Your task to perform on an android device: Open Wikipedia Image 0: 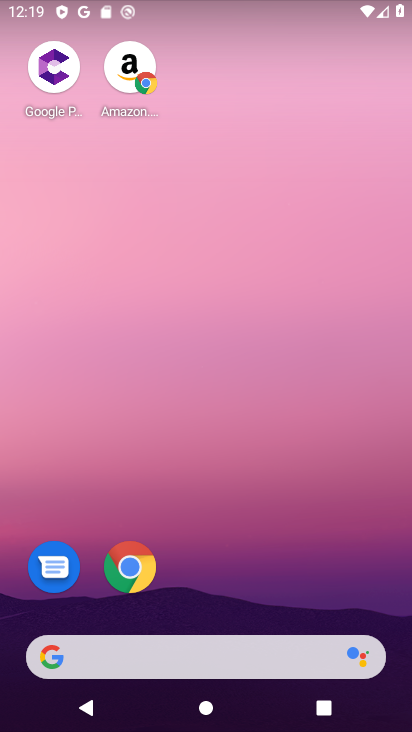
Step 0: click (131, 566)
Your task to perform on an android device: Open Wikipedia Image 1: 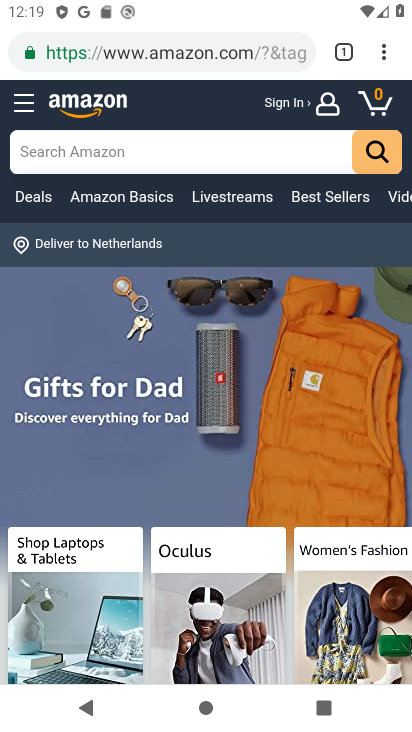
Step 1: click (271, 47)
Your task to perform on an android device: Open Wikipedia Image 2: 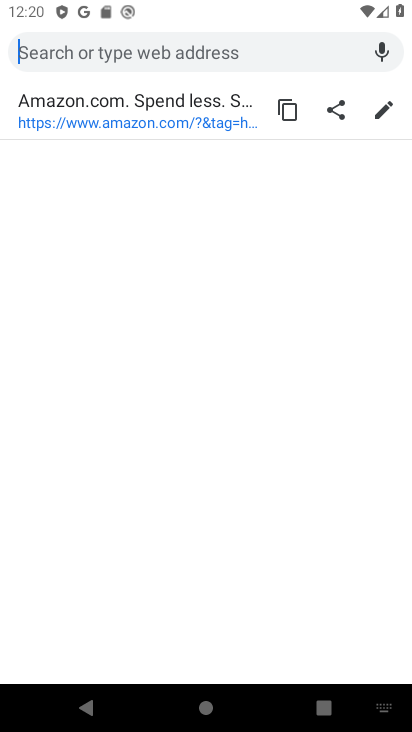
Step 2: type "Wikipedia"
Your task to perform on an android device: Open Wikipedia Image 3: 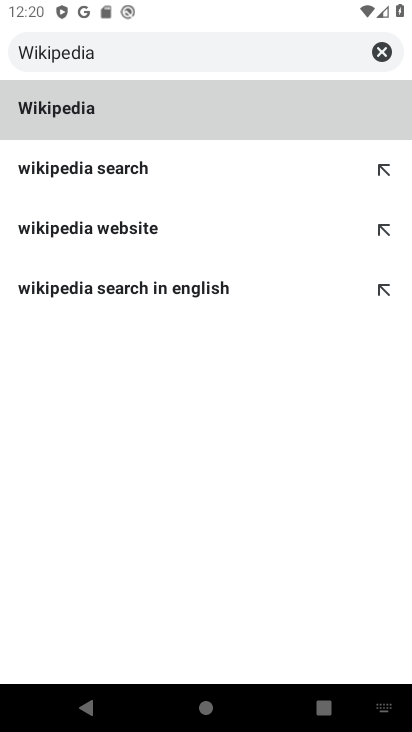
Step 3: click (72, 112)
Your task to perform on an android device: Open Wikipedia Image 4: 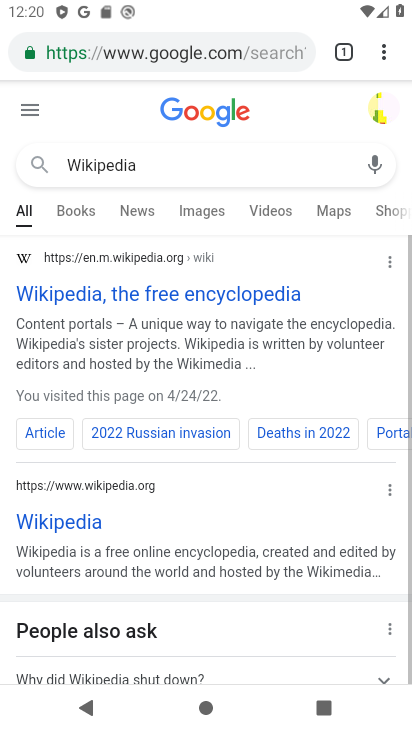
Step 4: click (96, 296)
Your task to perform on an android device: Open Wikipedia Image 5: 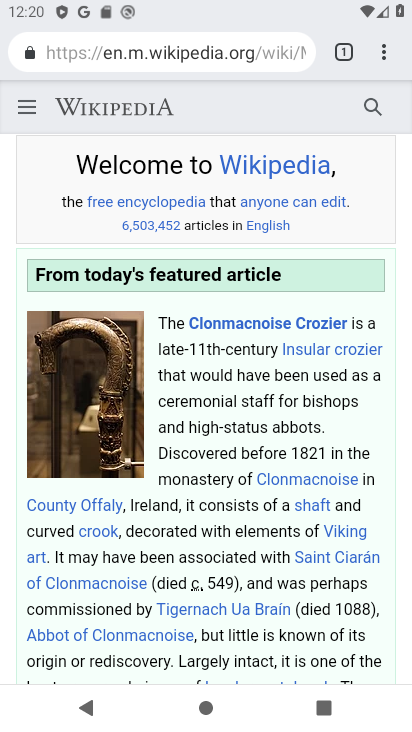
Step 5: task complete